Your task to perform on an android device: turn off picture-in-picture Image 0: 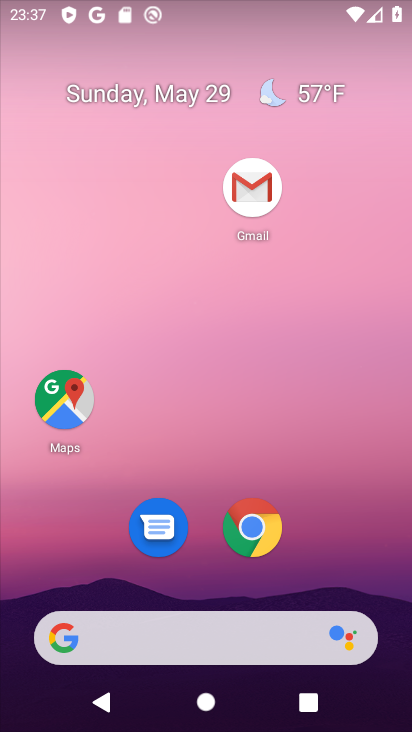
Step 0: click (252, 527)
Your task to perform on an android device: turn off picture-in-picture Image 1: 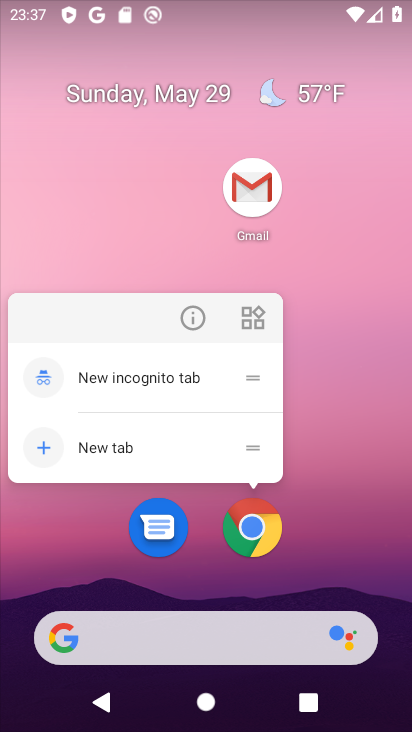
Step 1: click (191, 319)
Your task to perform on an android device: turn off picture-in-picture Image 2: 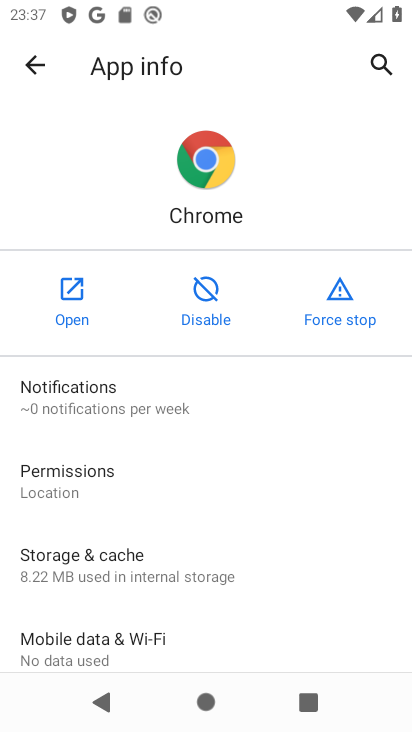
Step 2: drag from (167, 537) to (200, 447)
Your task to perform on an android device: turn off picture-in-picture Image 3: 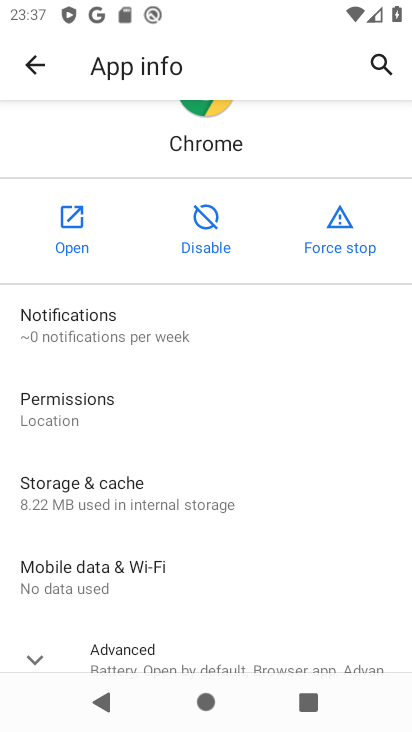
Step 3: drag from (138, 606) to (222, 465)
Your task to perform on an android device: turn off picture-in-picture Image 4: 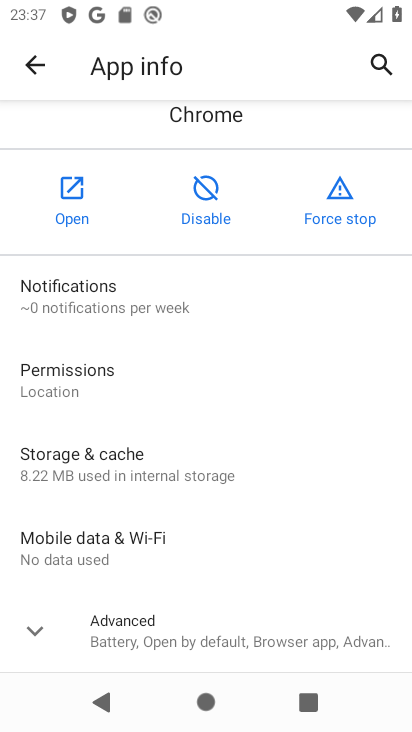
Step 4: click (169, 644)
Your task to perform on an android device: turn off picture-in-picture Image 5: 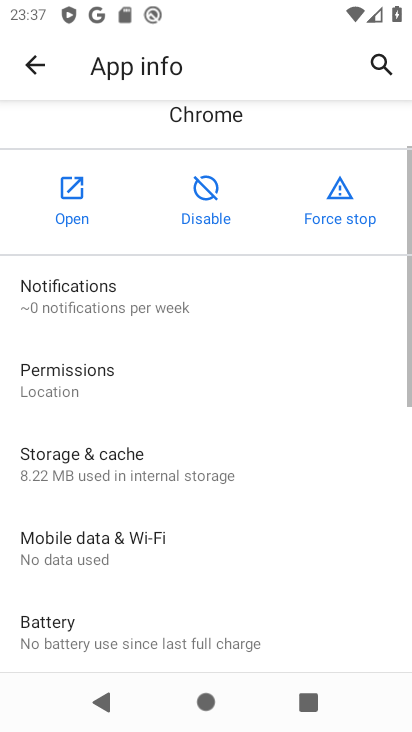
Step 5: drag from (168, 597) to (230, 467)
Your task to perform on an android device: turn off picture-in-picture Image 6: 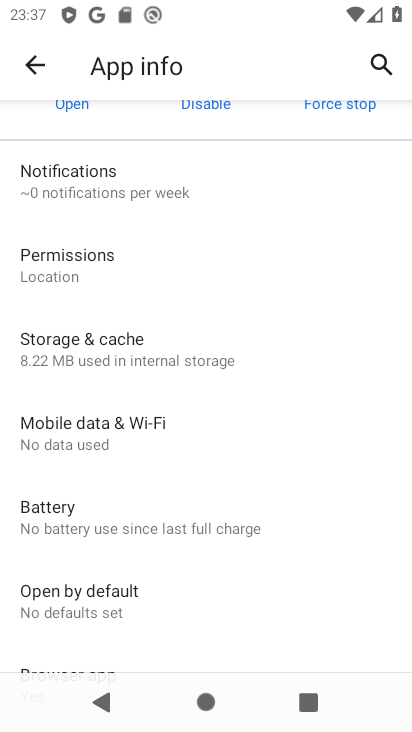
Step 6: drag from (176, 600) to (238, 480)
Your task to perform on an android device: turn off picture-in-picture Image 7: 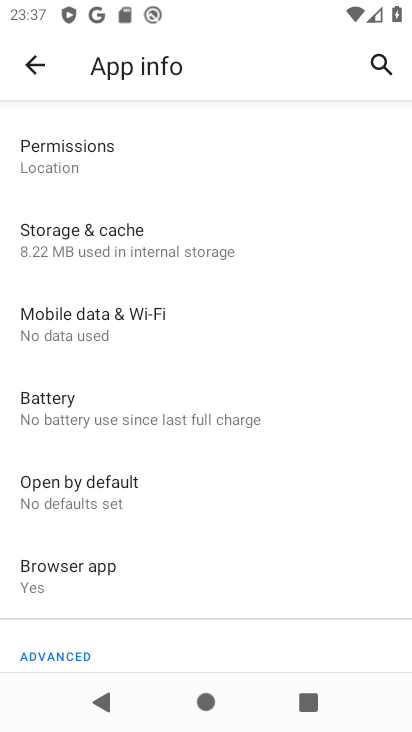
Step 7: drag from (165, 581) to (263, 458)
Your task to perform on an android device: turn off picture-in-picture Image 8: 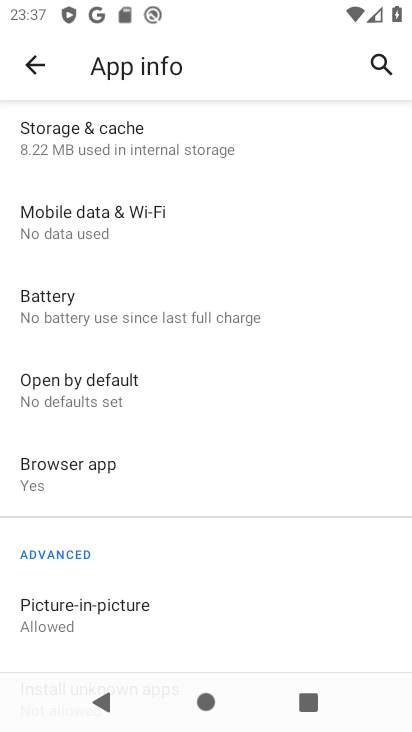
Step 8: drag from (165, 573) to (256, 468)
Your task to perform on an android device: turn off picture-in-picture Image 9: 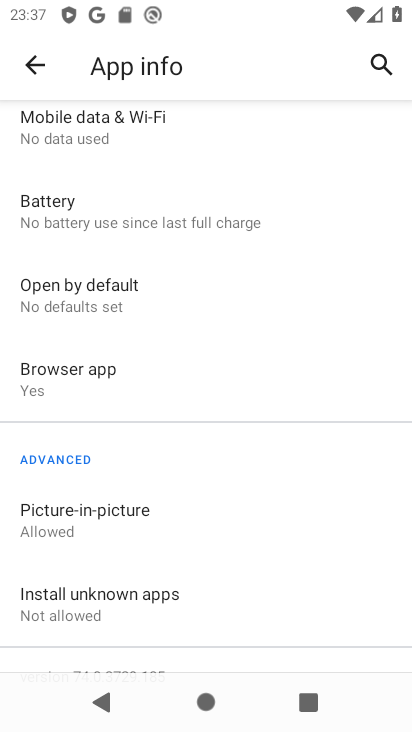
Step 9: click (127, 510)
Your task to perform on an android device: turn off picture-in-picture Image 10: 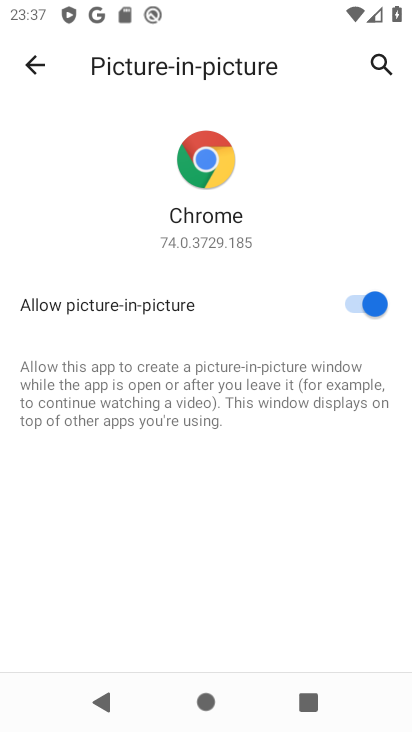
Step 10: click (357, 299)
Your task to perform on an android device: turn off picture-in-picture Image 11: 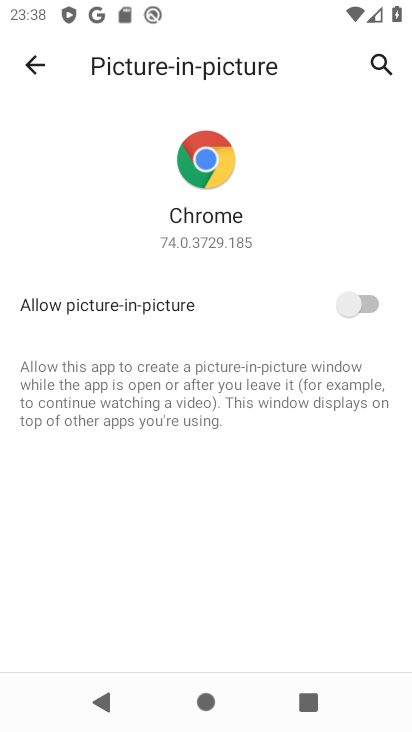
Step 11: task complete